Your task to perform on an android device: open app "Fetch Rewards" Image 0: 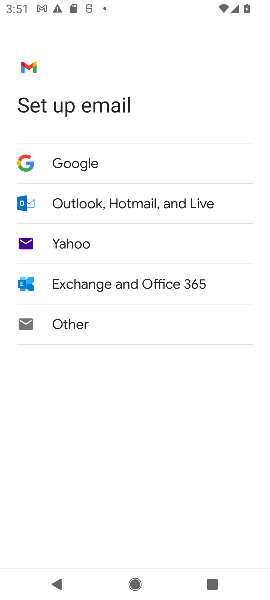
Step 0: press home button
Your task to perform on an android device: open app "Fetch Rewards" Image 1: 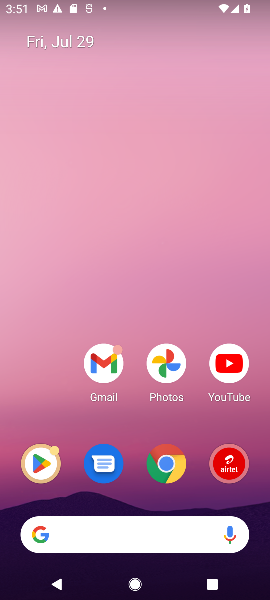
Step 1: drag from (108, 544) to (120, 196)
Your task to perform on an android device: open app "Fetch Rewards" Image 2: 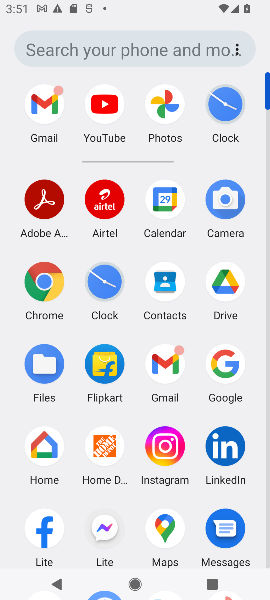
Step 2: drag from (133, 420) to (122, 213)
Your task to perform on an android device: open app "Fetch Rewards" Image 3: 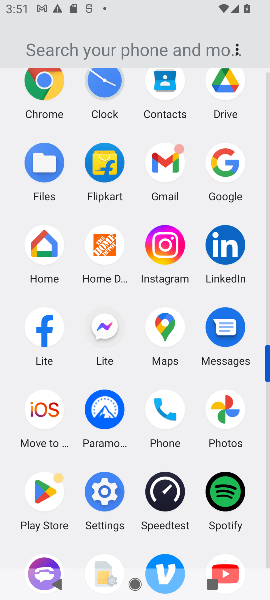
Step 3: click (40, 500)
Your task to perform on an android device: open app "Fetch Rewards" Image 4: 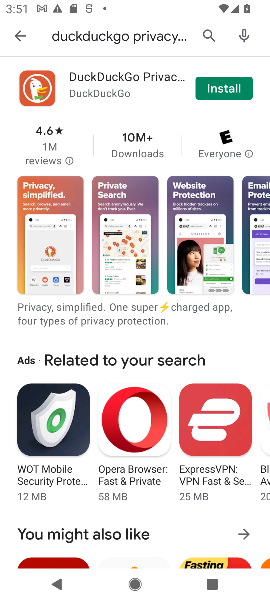
Step 4: click (206, 32)
Your task to perform on an android device: open app "Fetch Rewards" Image 5: 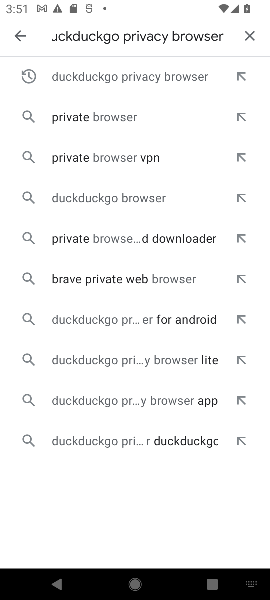
Step 5: click (249, 34)
Your task to perform on an android device: open app "Fetch Rewards" Image 6: 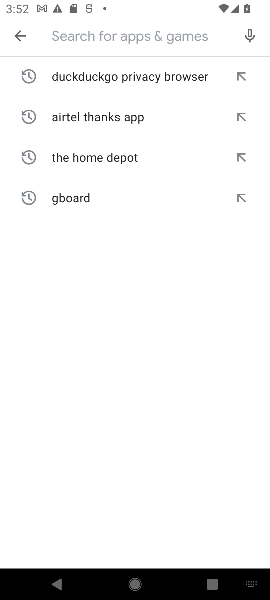
Step 6: type "Fetch Rewards"
Your task to perform on an android device: open app "Fetch Rewards" Image 7: 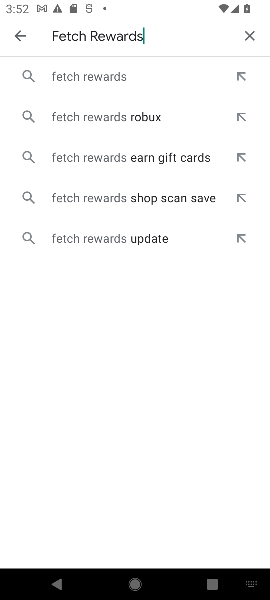
Step 7: click (110, 76)
Your task to perform on an android device: open app "Fetch Rewards" Image 8: 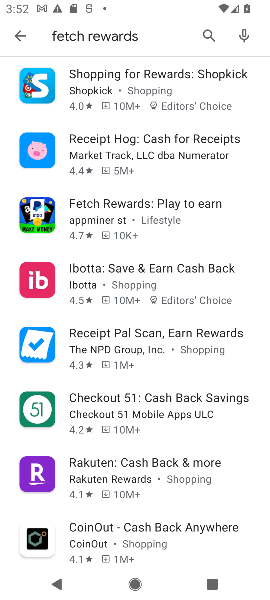
Step 8: click (125, 200)
Your task to perform on an android device: open app "Fetch Rewards" Image 9: 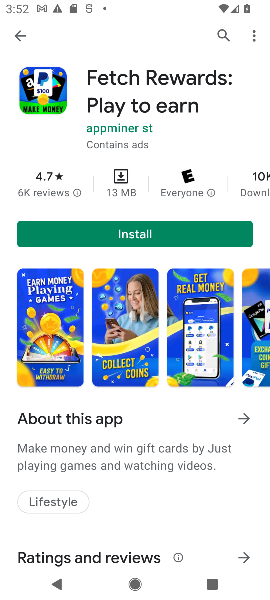
Step 9: task complete